Your task to perform on an android device: View the shopping cart on amazon.com. Image 0: 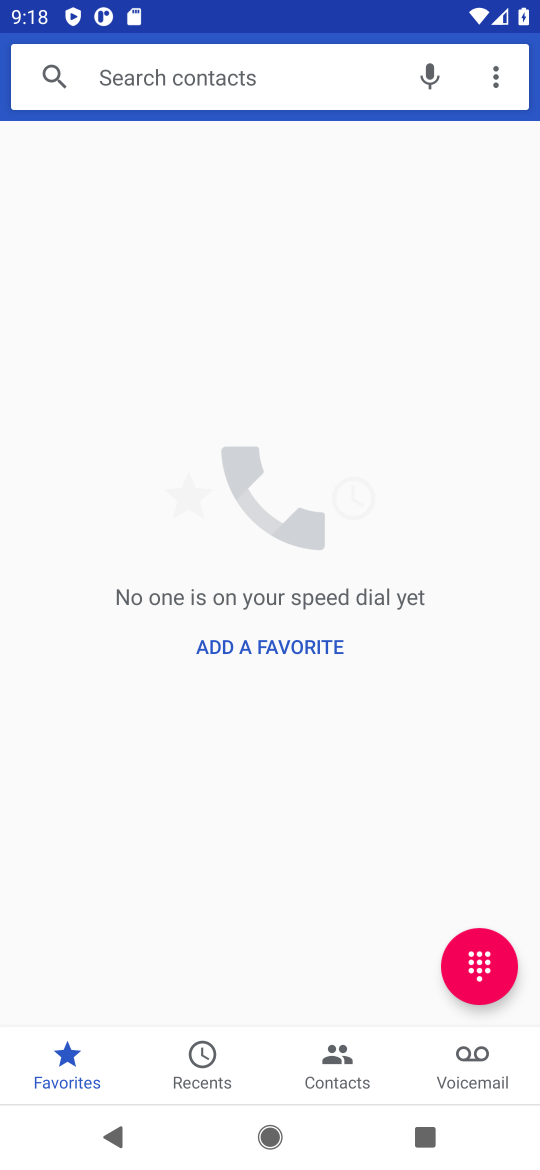
Step 0: press home button
Your task to perform on an android device: View the shopping cart on amazon.com. Image 1: 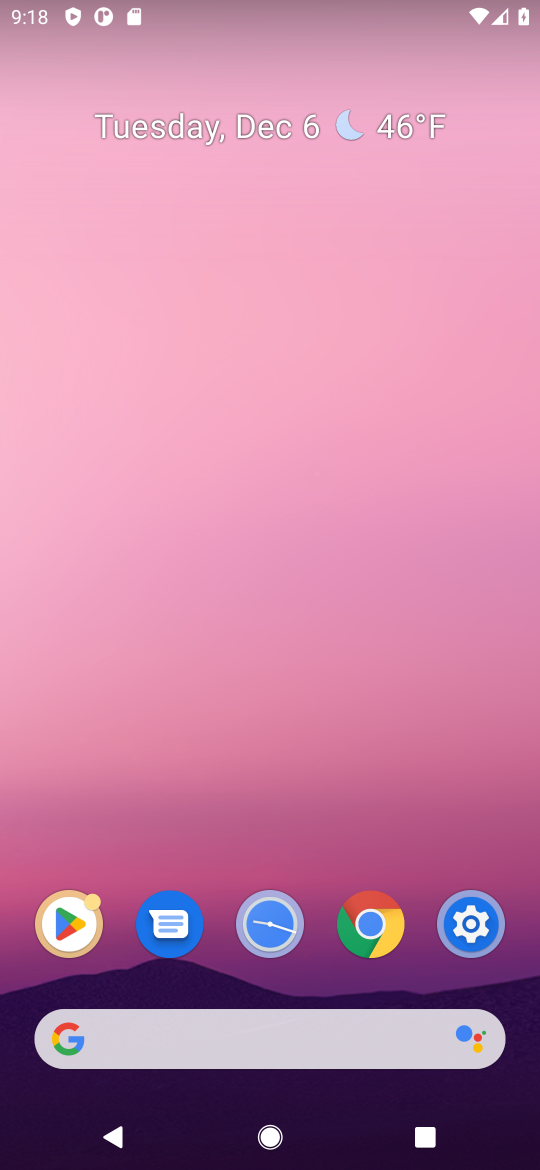
Step 1: click (195, 1030)
Your task to perform on an android device: View the shopping cart on amazon.com. Image 2: 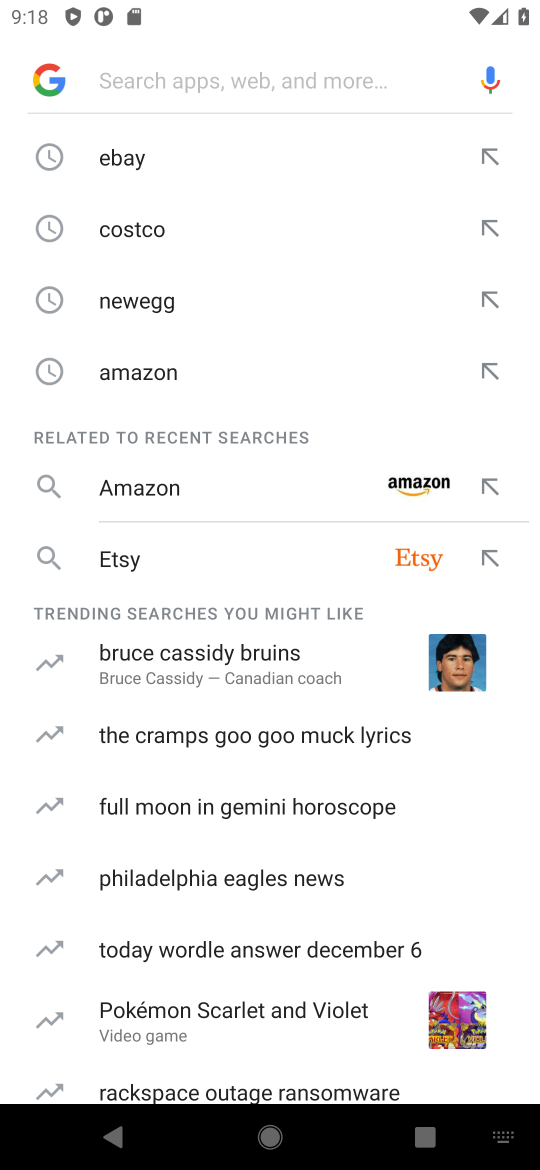
Step 2: type "amazon"
Your task to perform on an android device: View the shopping cart on amazon.com. Image 3: 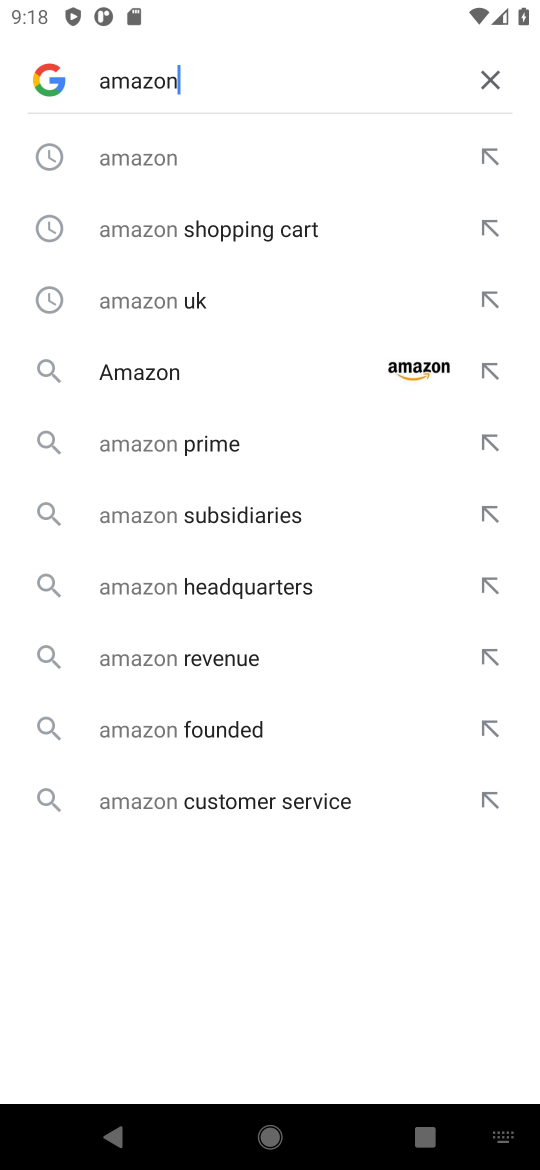
Step 3: click (182, 375)
Your task to perform on an android device: View the shopping cart on amazon.com. Image 4: 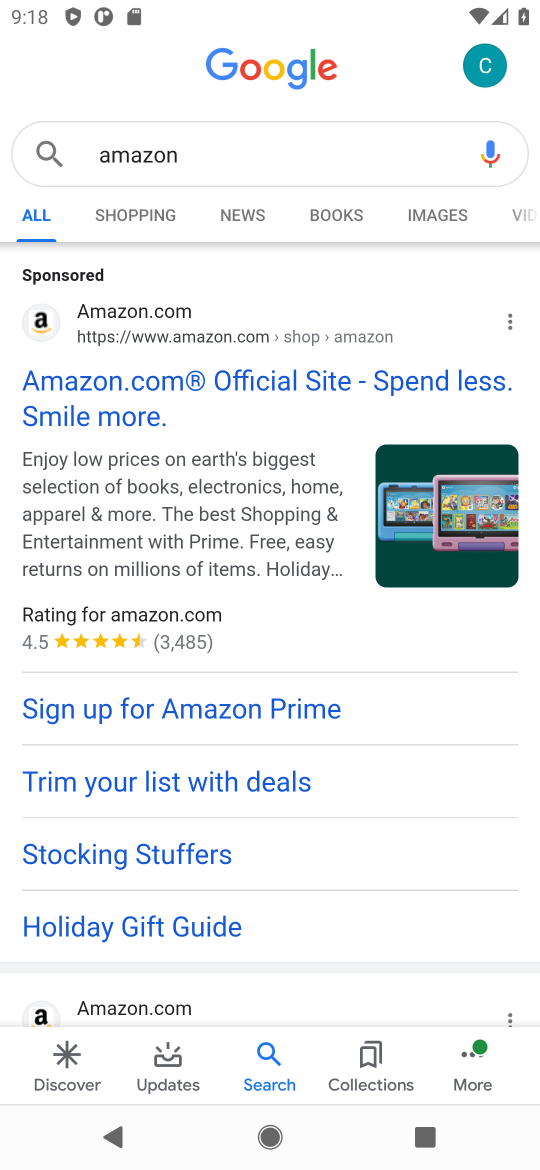
Step 4: click (181, 391)
Your task to perform on an android device: View the shopping cart on amazon.com. Image 5: 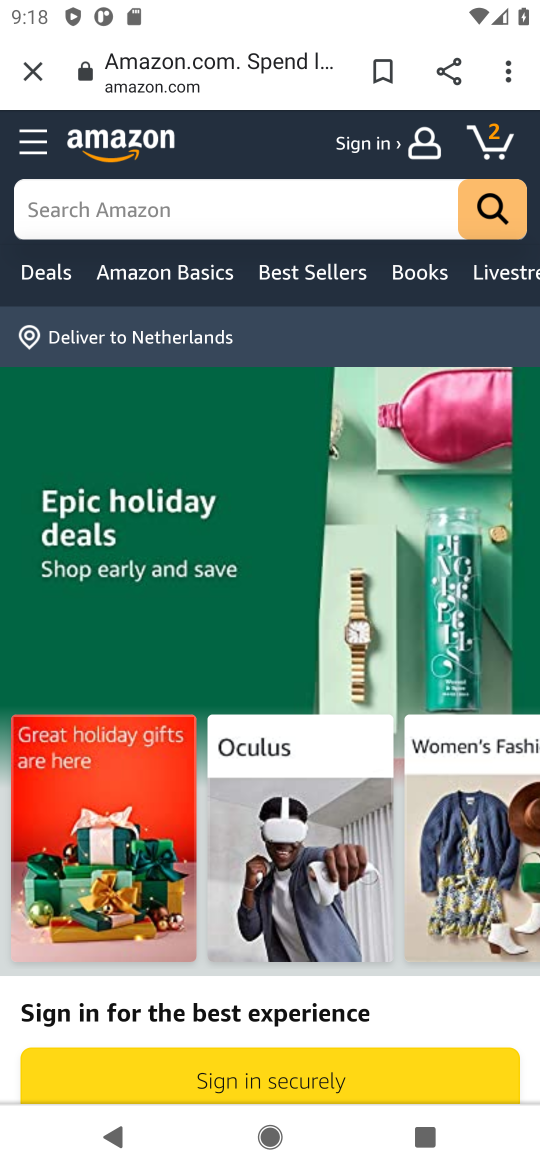
Step 5: click (201, 207)
Your task to perform on an android device: View the shopping cart on amazon.com. Image 6: 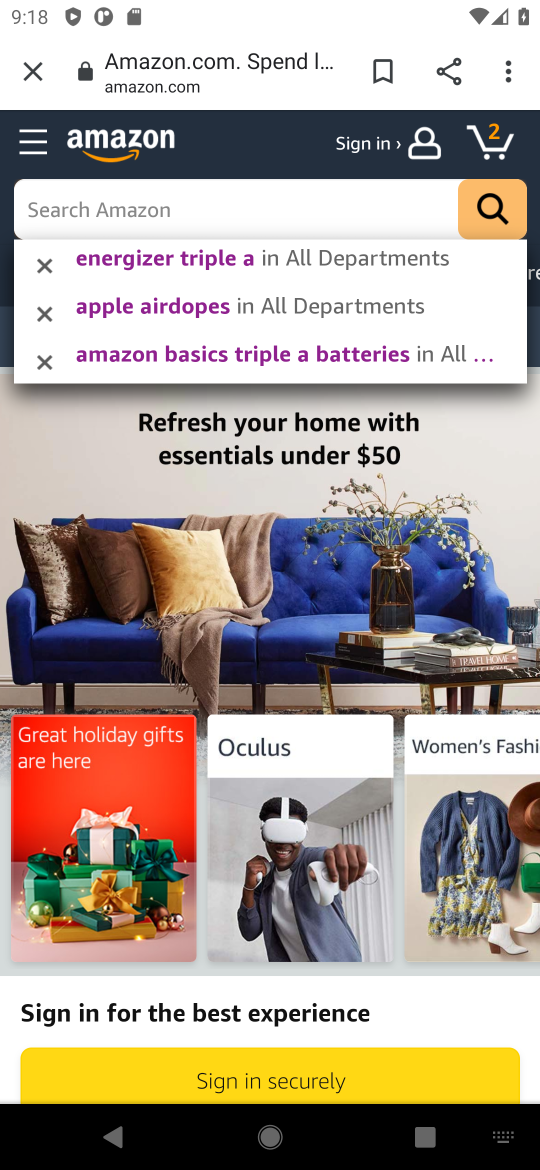
Step 6: type "amazon"
Your task to perform on an android device: View the shopping cart on amazon.com. Image 7: 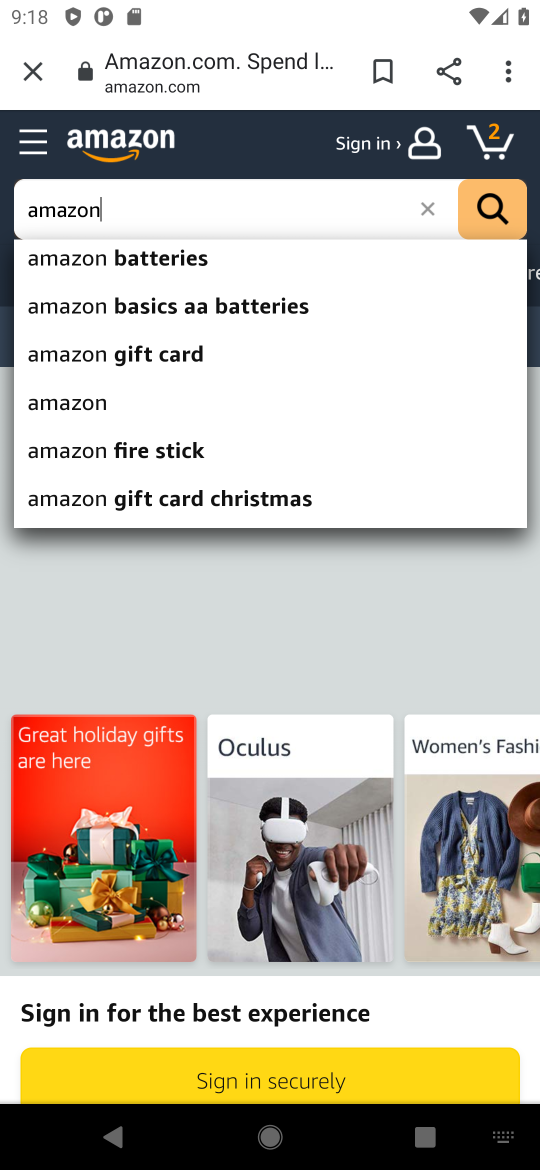
Step 7: click (507, 155)
Your task to perform on an android device: View the shopping cart on amazon.com. Image 8: 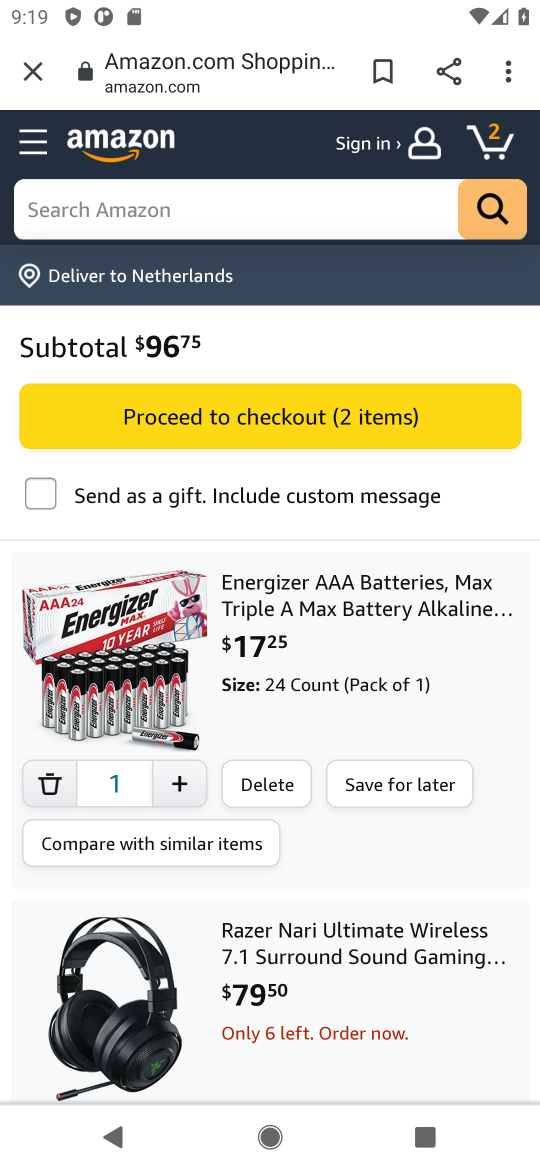
Step 8: task complete